Your task to perform on an android device: open wifi settings Image 0: 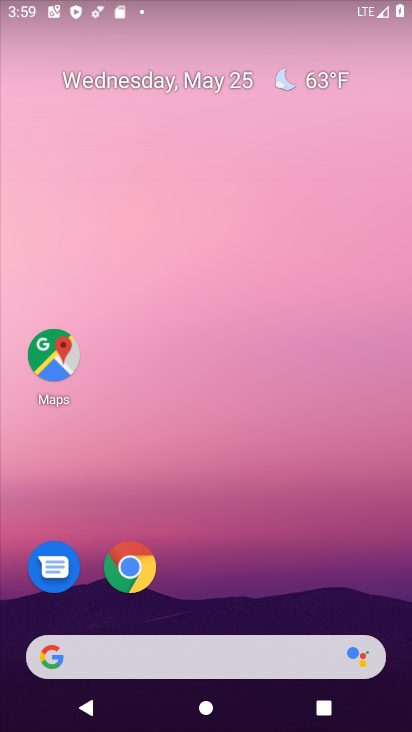
Step 0: drag from (196, 5) to (182, 527)
Your task to perform on an android device: open wifi settings Image 1: 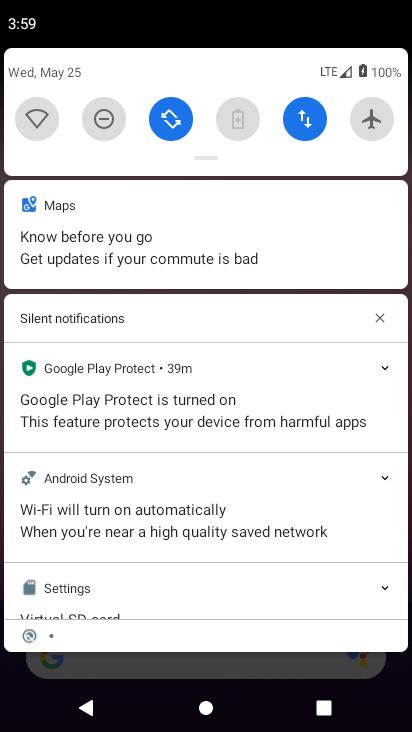
Step 1: click (37, 114)
Your task to perform on an android device: open wifi settings Image 2: 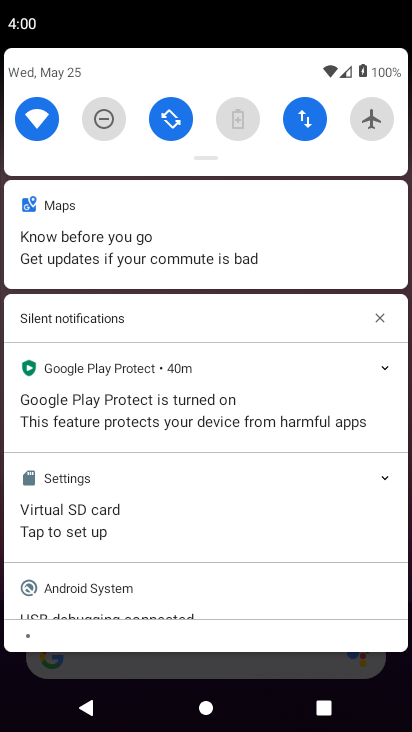
Step 2: task complete